Your task to perform on an android device: all mails in gmail Image 0: 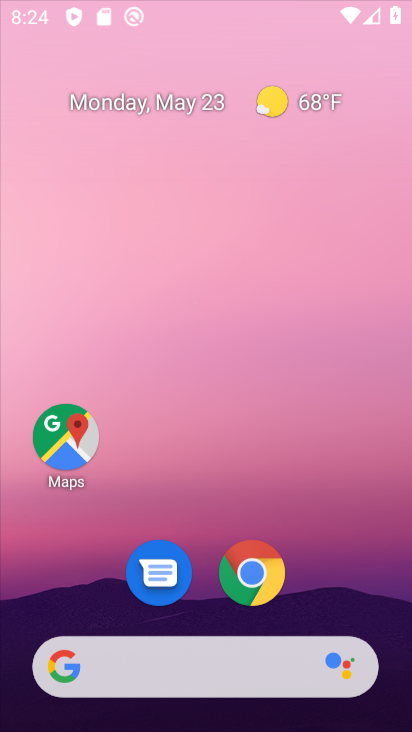
Step 0: press home button
Your task to perform on an android device: all mails in gmail Image 1: 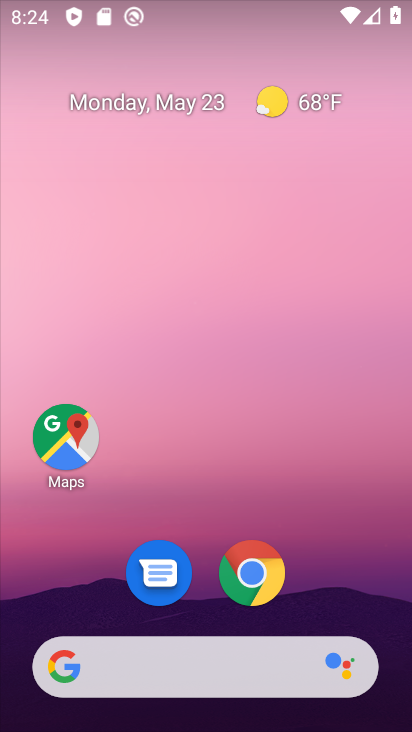
Step 1: drag from (210, 619) to (235, 155)
Your task to perform on an android device: all mails in gmail Image 2: 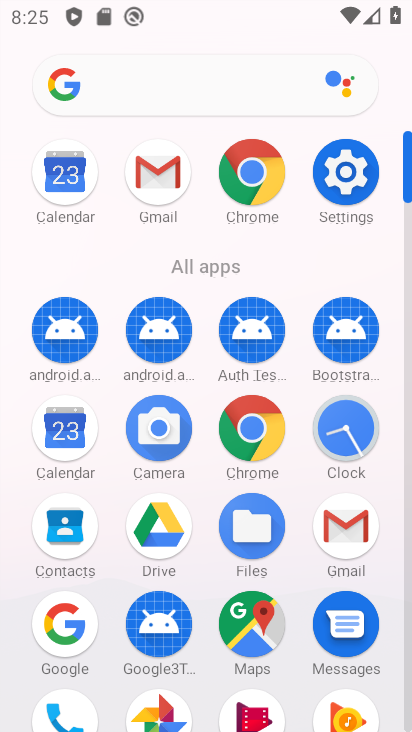
Step 2: click (337, 525)
Your task to perform on an android device: all mails in gmail Image 3: 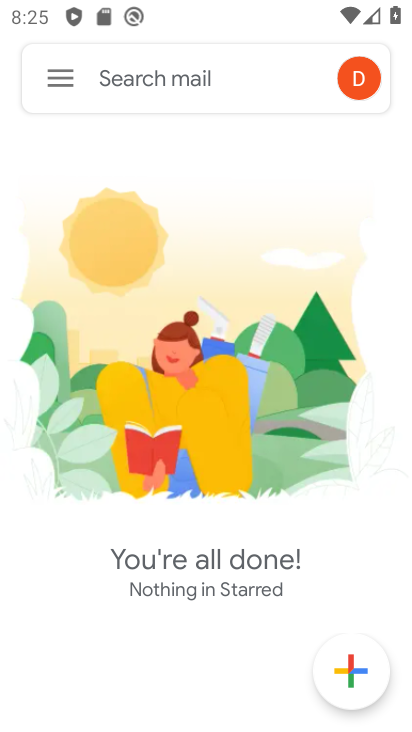
Step 3: click (57, 79)
Your task to perform on an android device: all mails in gmail Image 4: 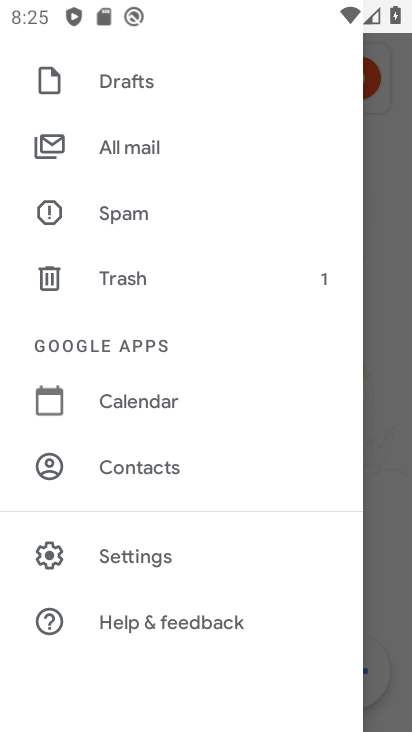
Step 4: click (129, 132)
Your task to perform on an android device: all mails in gmail Image 5: 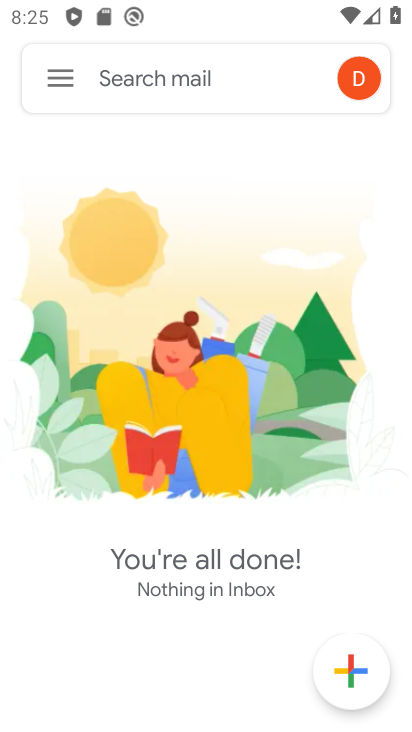
Step 5: task complete